Your task to perform on an android device: toggle notifications settings in the gmail app Image 0: 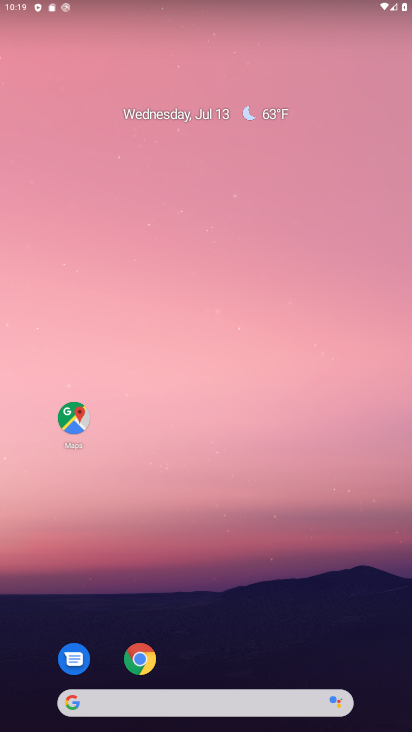
Step 0: drag from (297, 637) to (193, 119)
Your task to perform on an android device: toggle notifications settings in the gmail app Image 1: 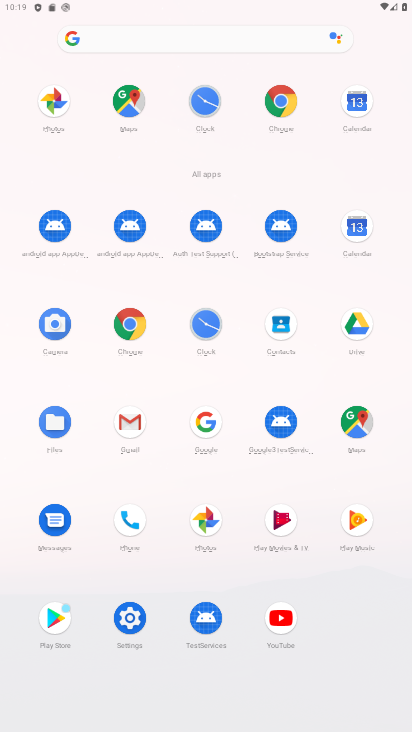
Step 1: click (133, 426)
Your task to perform on an android device: toggle notifications settings in the gmail app Image 2: 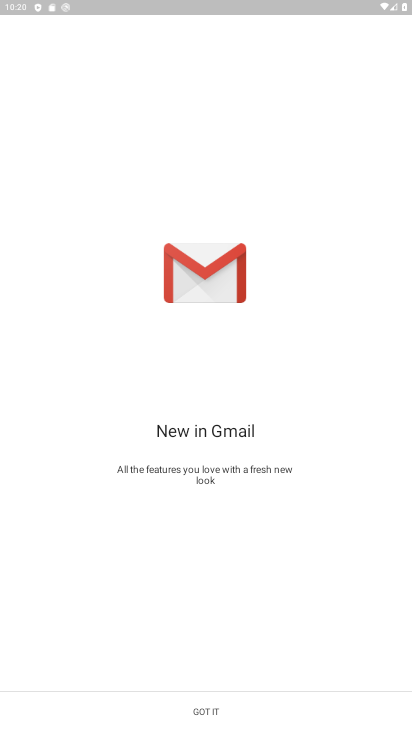
Step 2: click (201, 713)
Your task to perform on an android device: toggle notifications settings in the gmail app Image 3: 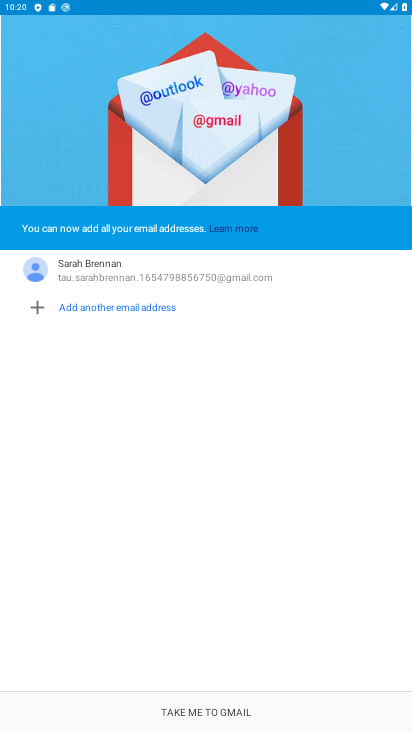
Step 3: click (247, 715)
Your task to perform on an android device: toggle notifications settings in the gmail app Image 4: 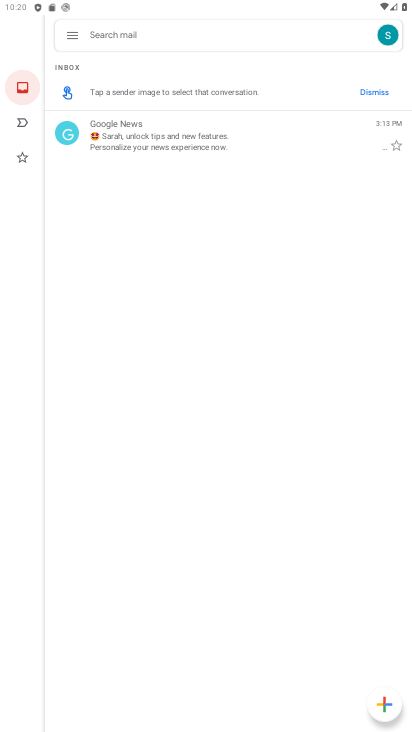
Step 4: click (71, 36)
Your task to perform on an android device: toggle notifications settings in the gmail app Image 5: 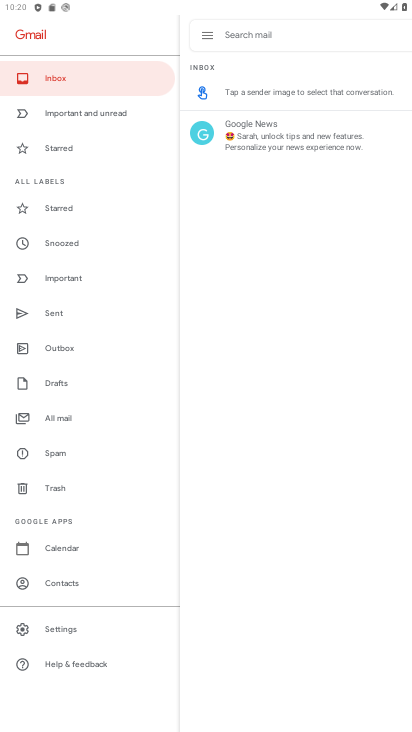
Step 5: click (80, 631)
Your task to perform on an android device: toggle notifications settings in the gmail app Image 6: 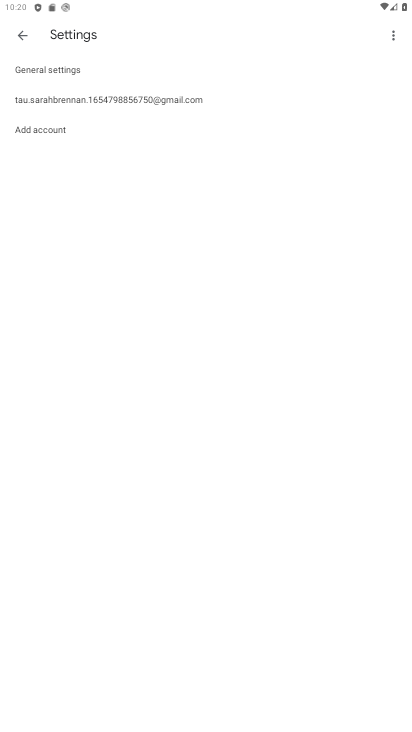
Step 6: click (136, 91)
Your task to perform on an android device: toggle notifications settings in the gmail app Image 7: 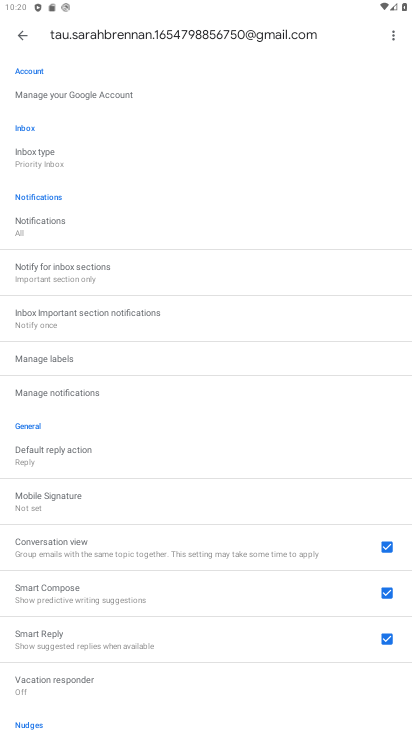
Step 7: click (97, 398)
Your task to perform on an android device: toggle notifications settings in the gmail app Image 8: 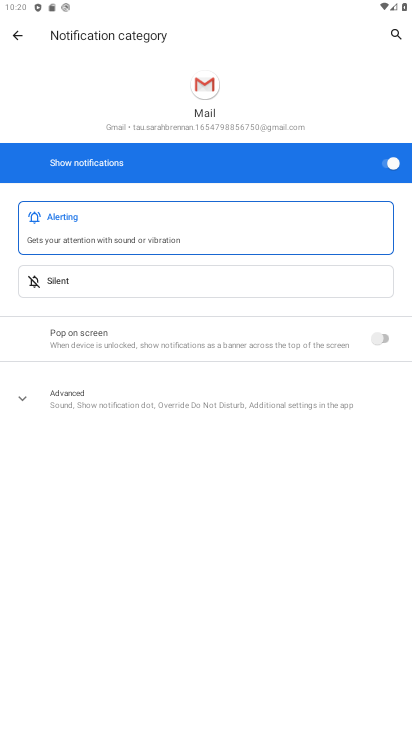
Step 8: click (397, 163)
Your task to perform on an android device: toggle notifications settings in the gmail app Image 9: 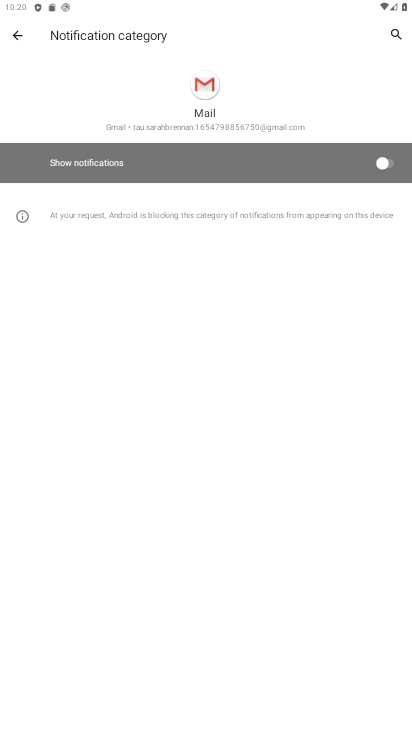
Step 9: task complete